Your task to perform on an android device: Open internet settings Image 0: 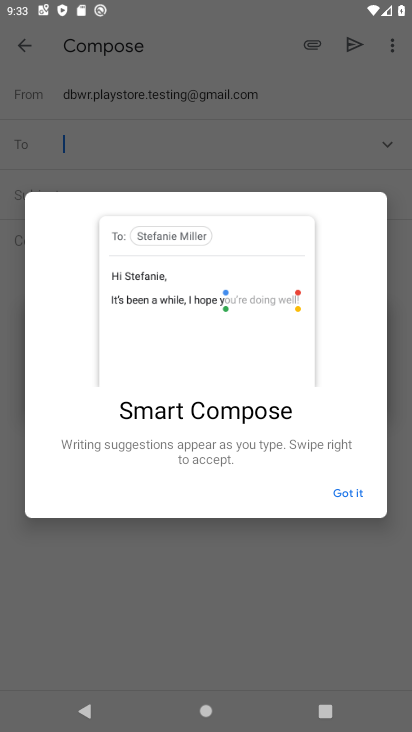
Step 0: press home button
Your task to perform on an android device: Open internet settings Image 1: 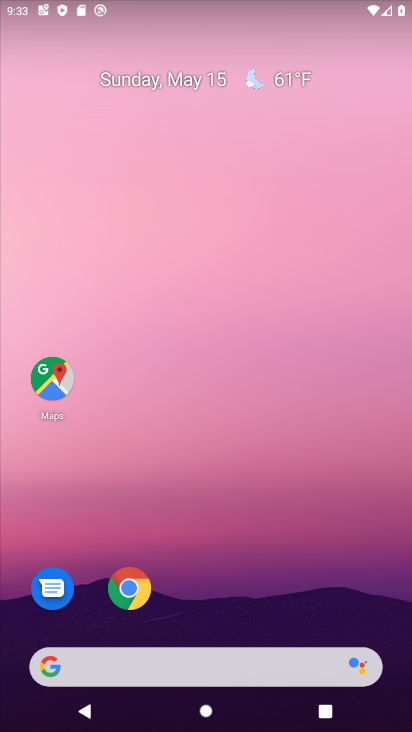
Step 1: drag from (218, 623) to (264, 96)
Your task to perform on an android device: Open internet settings Image 2: 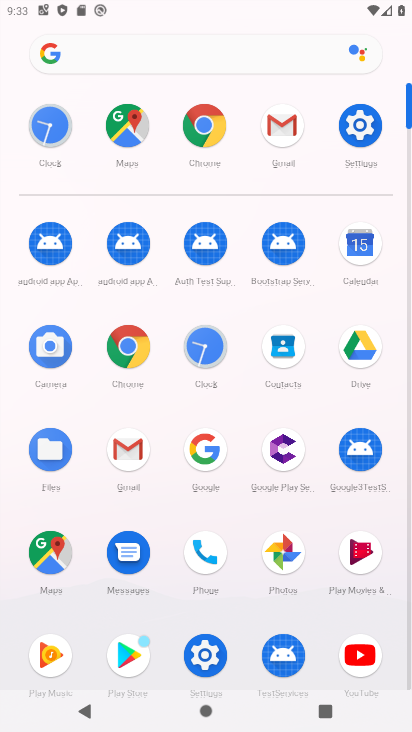
Step 2: click (206, 651)
Your task to perform on an android device: Open internet settings Image 3: 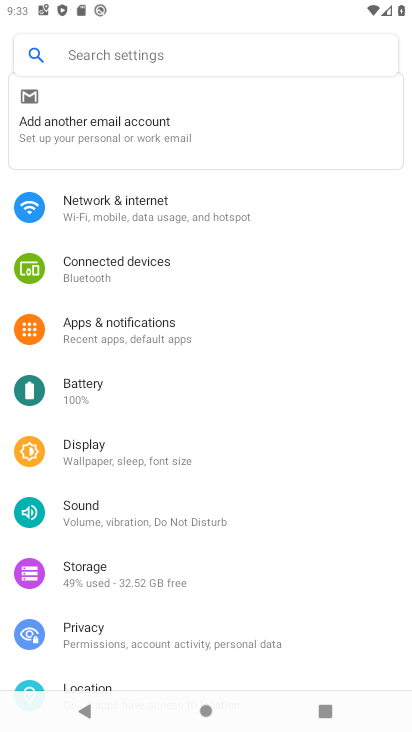
Step 3: click (167, 215)
Your task to perform on an android device: Open internet settings Image 4: 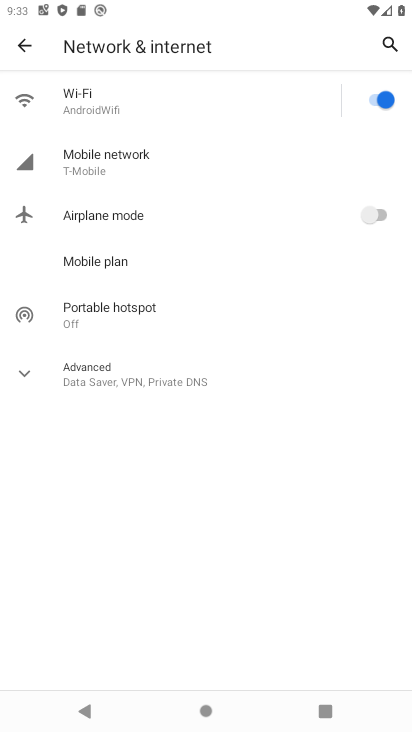
Step 4: task complete